Your task to perform on an android device: turn off improve location accuracy Image 0: 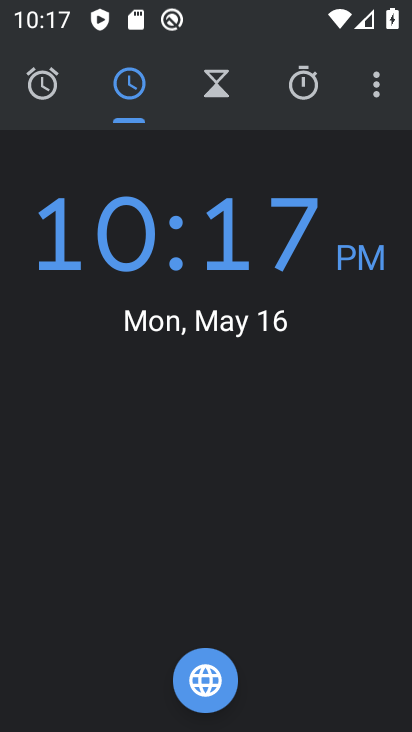
Step 0: press home button
Your task to perform on an android device: turn off improve location accuracy Image 1: 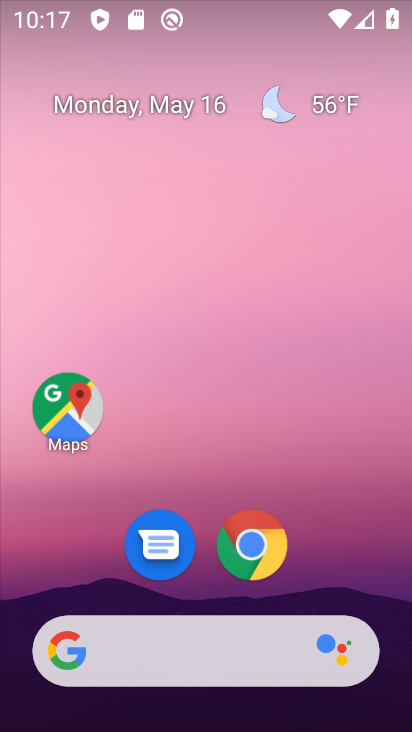
Step 1: drag from (206, 608) to (168, 77)
Your task to perform on an android device: turn off improve location accuracy Image 2: 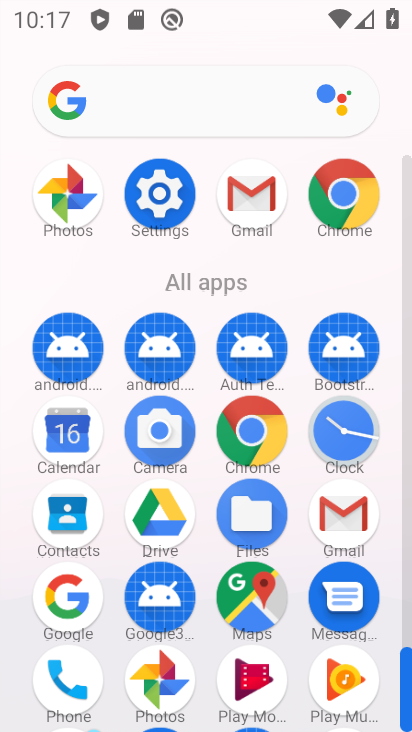
Step 2: click (167, 189)
Your task to perform on an android device: turn off improve location accuracy Image 3: 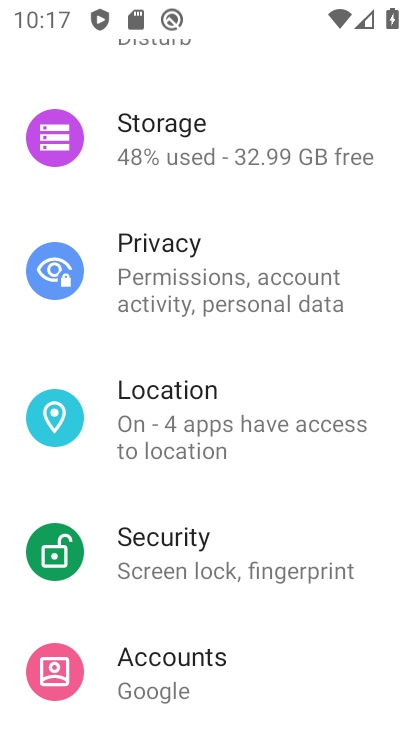
Step 3: click (165, 456)
Your task to perform on an android device: turn off improve location accuracy Image 4: 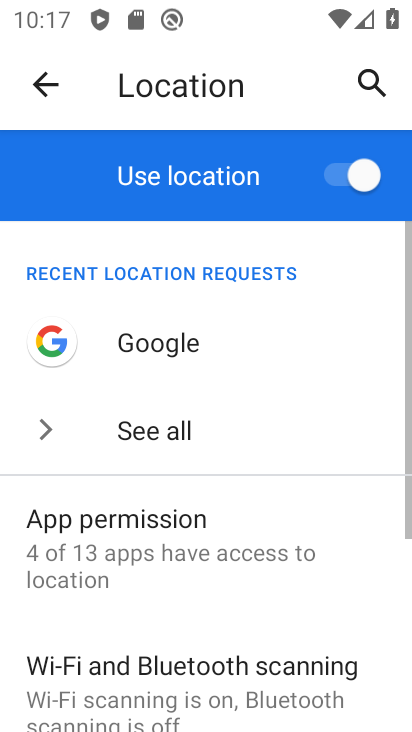
Step 4: drag from (189, 586) to (164, 273)
Your task to perform on an android device: turn off improve location accuracy Image 5: 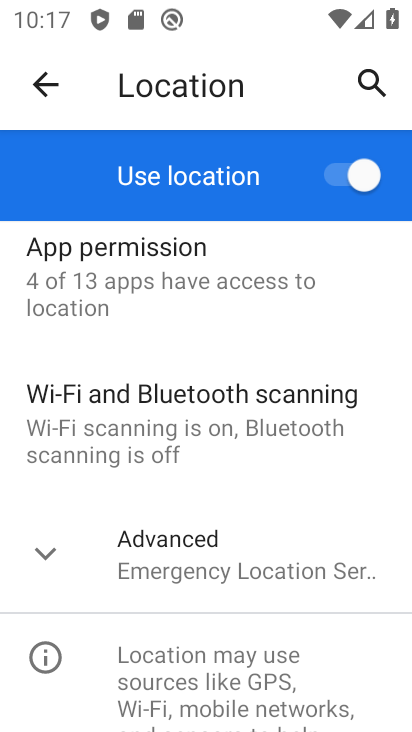
Step 5: click (186, 550)
Your task to perform on an android device: turn off improve location accuracy Image 6: 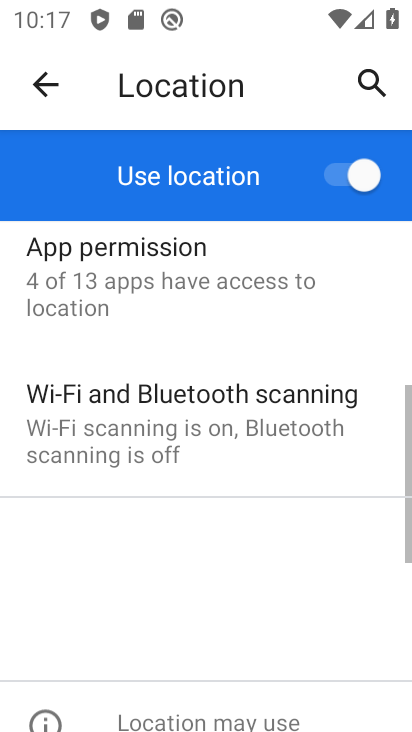
Step 6: drag from (186, 550) to (145, 276)
Your task to perform on an android device: turn off improve location accuracy Image 7: 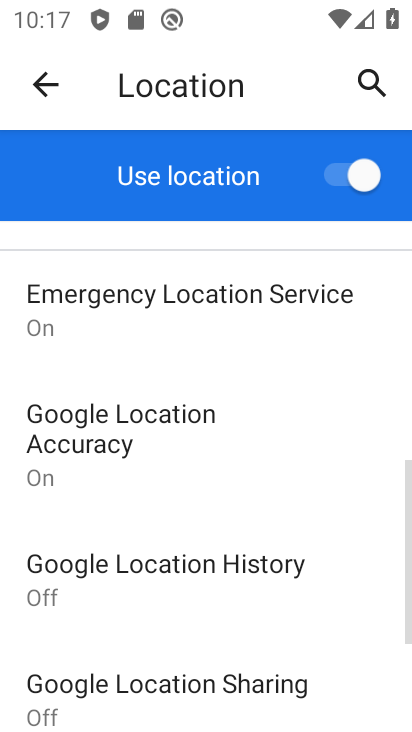
Step 7: click (116, 445)
Your task to perform on an android device: turn off improve location accuracy Image 8: 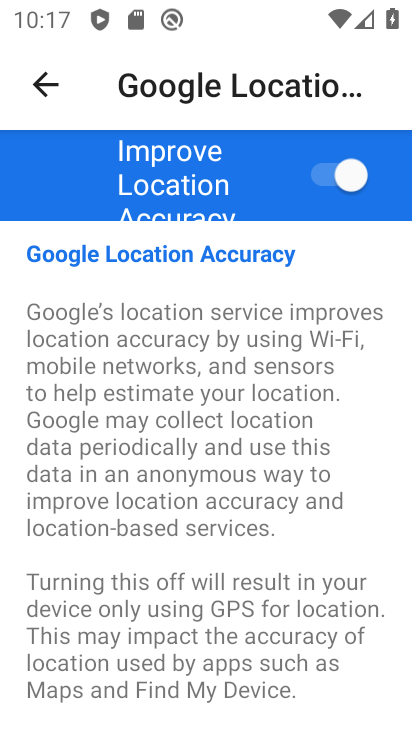
Step 8: click (327, 182)
Your task to perform on an android device: turn off improve location accuracy Image 9: 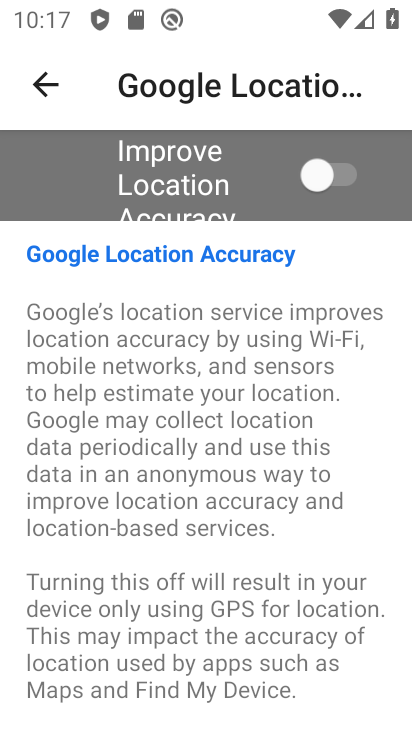
Step 9: task complete